Your task to perform on an android device: Show me the alarms in the clock app Image 0: 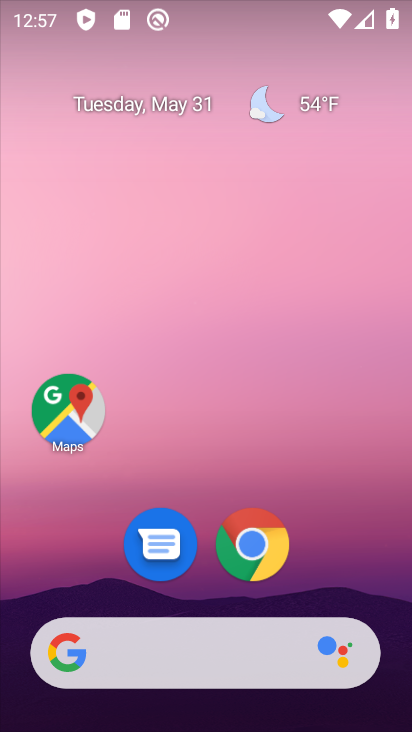
Step 0: drag from (308, 576) to (286, 27)
Your task to perform on an android device: Show me the alarms in the clock app Image 1: 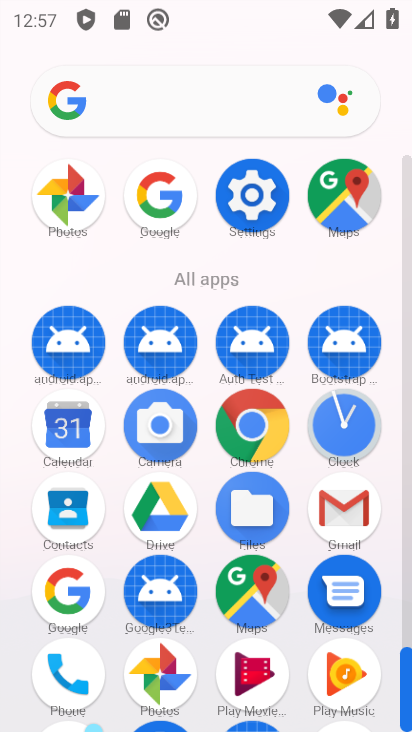
Step 1: click (338, 420)
Your task to perform on an android device: Show me the alarms in the clock app Image 2: 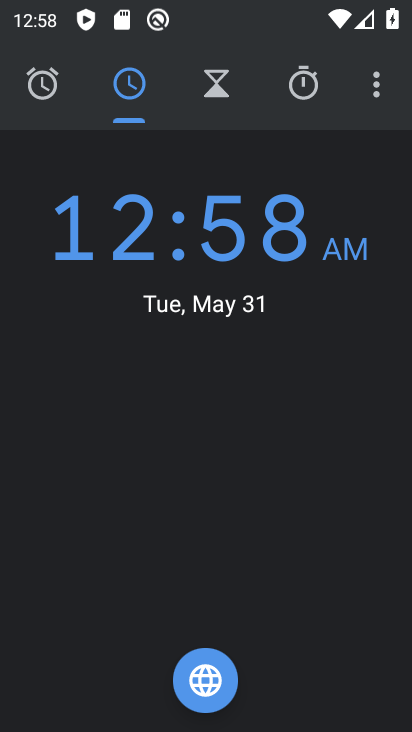
Step 2: click (44, 107)
Your task to perform on an android device: Show me the alarms in the clock app Image 3: 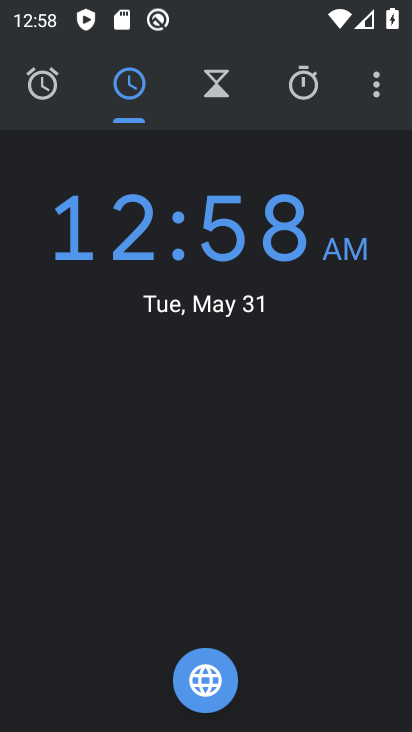
Step 3: click (30, 87)
Your task to perform on an android device: Show me the alarms in the clock app Image 4: 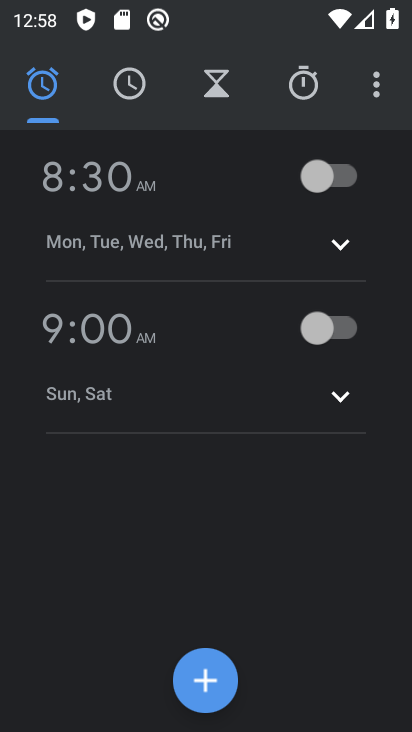
Step 4: task complete